Your task to perform on an android device: Search for Italian restaurants on Maps Image 0: 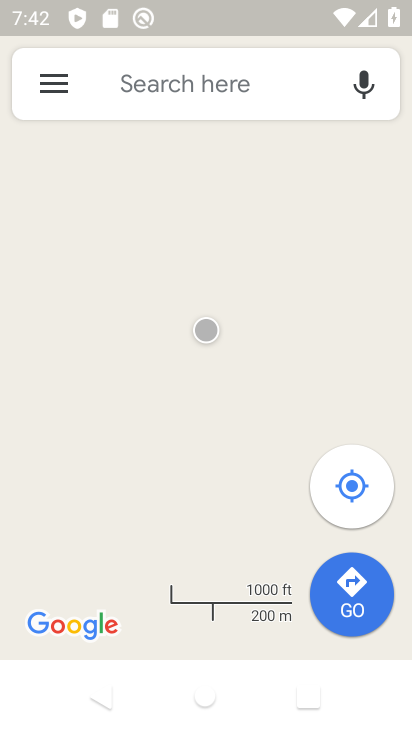
Step 0: press back button
Your task to perform on an android device: Search for Italian restaurants on Maps Image 1: 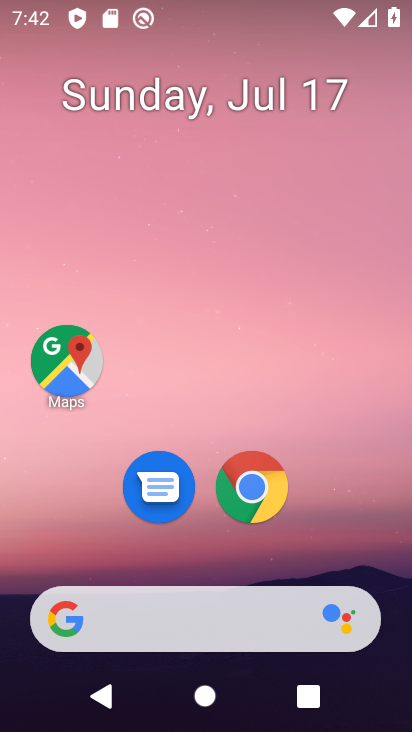
Step 1: click (77, 375)
Your task to perform on an android device: Search for Italian restaurants on Maps Image 2: 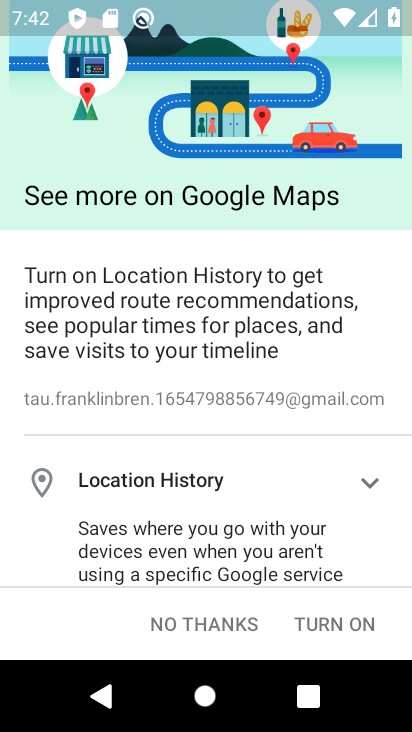
Step 2: click (186, 623)
Your task to perform on an android device: Search for Italian restaurants on Maps Image 3: 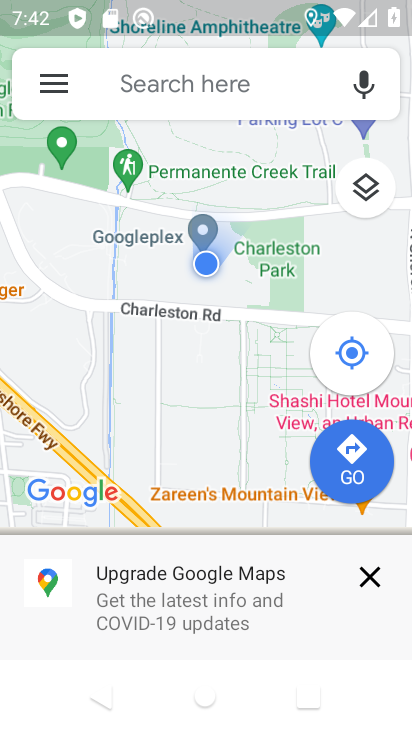
Step 3: click (157, 83)
Your task to perform on an android device: Search for Italian restaurants on Maps Image 4: 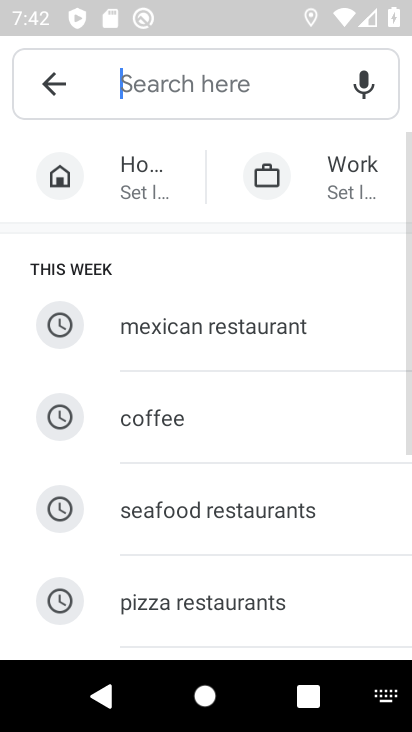
Step 4: drag from (180, 557) to (299, 51)
Your task to perform on an android device: Search for Italian restaurants on Maps Image 5: 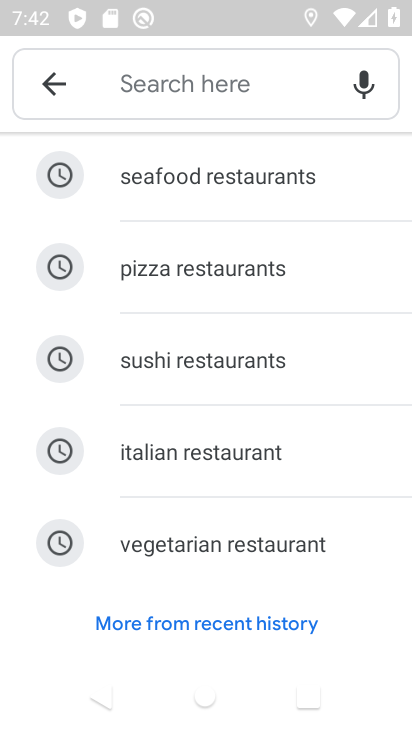
Step 5: click (139, 452)
Your task to perform on an android device: Search for Italian restaurants on Maps Image 6: 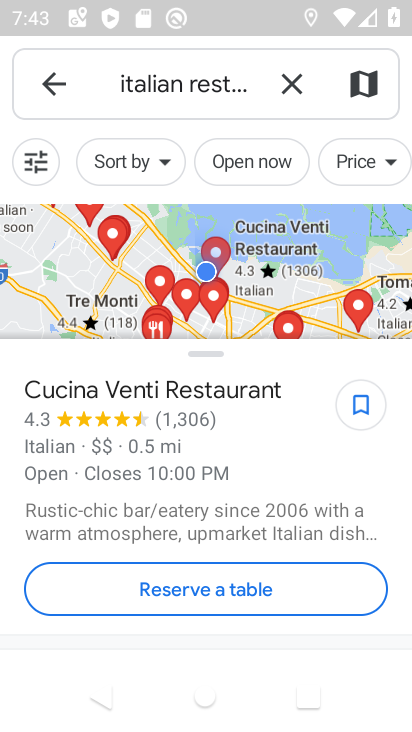
Step 6: task complete